Your task to perform on an android device: allow notifications from all sites in the chrome app Image 0: 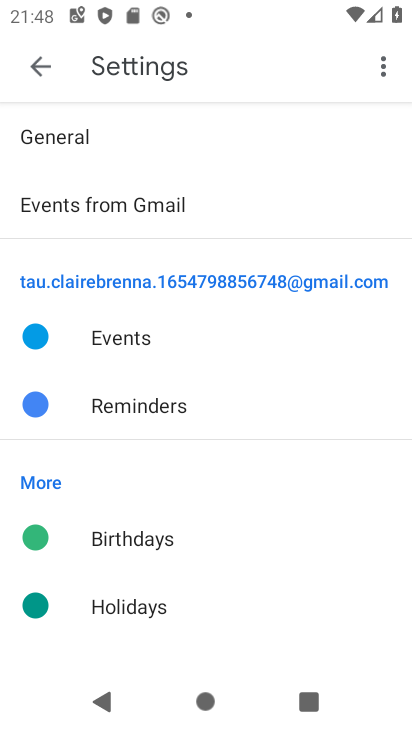
Step 0: press home button
Your task to perform on an android device: allow notifications from all sites in the chrome app Image 1: 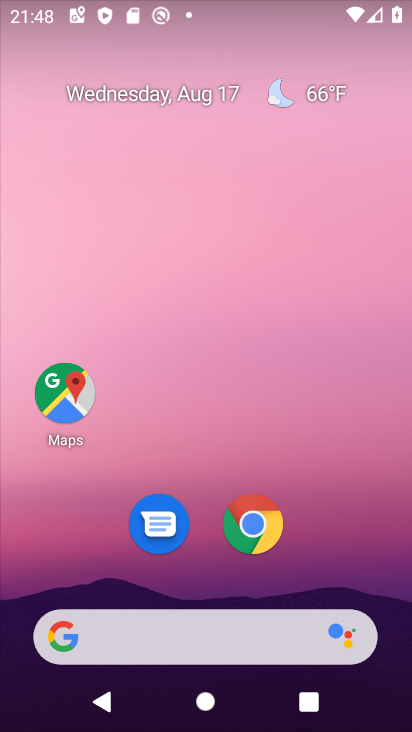
Step 1: click (258, 525)
Your task to perform on an android device: allow notifications from all sites in the chrome app Image 2: 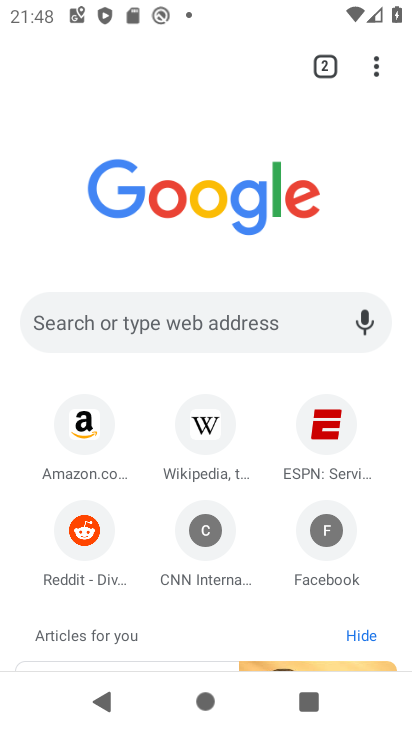
Step 2: click (375, 66)
Your task to perform on an android device: allow notifications from all sites in the chrome app Image 3: 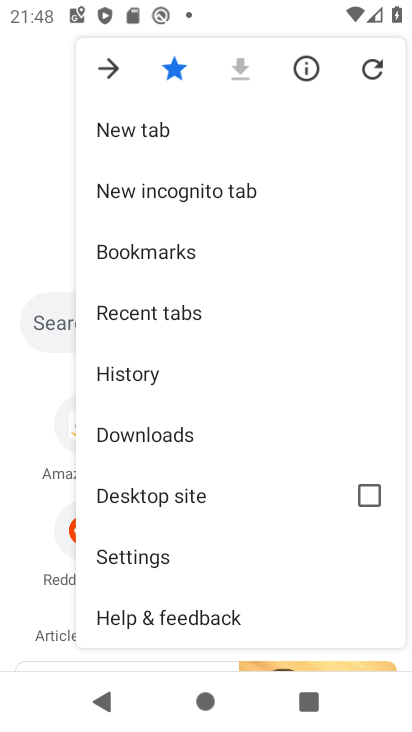
Step 3: click (184, 557)
Your task to perform on an android device: allow notifications from all sites in the chrome app Image 4: 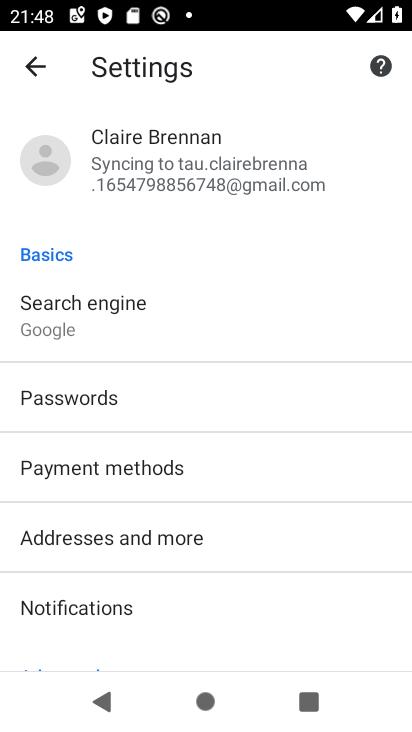
Step 4: click (194, 607)
Your task to perform on an android device: allow notifications from all sites in the chrome app Image 5: 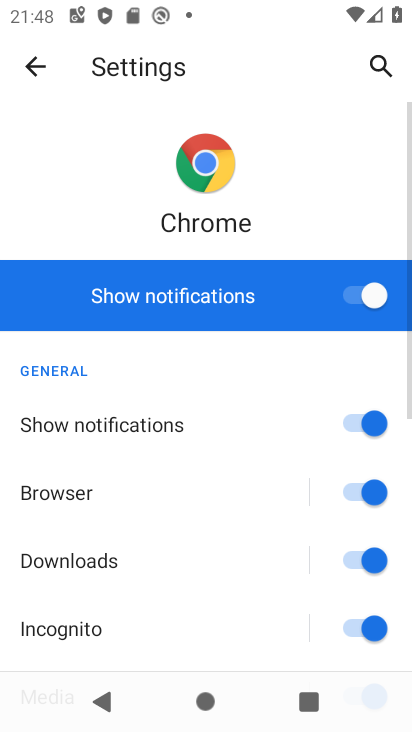
Step 5: task complete